Your task to perform on an android device: turn off data saver in the chrome app Image 0: 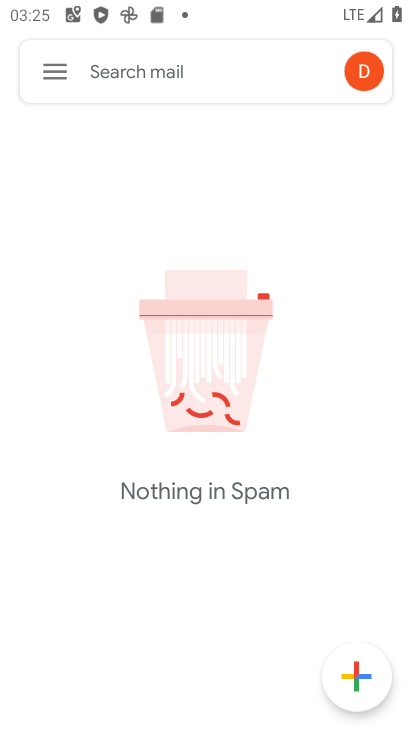
Step 0: press home button
Your task to perform on an android device: turn off data saver in the chrome app Image 1: 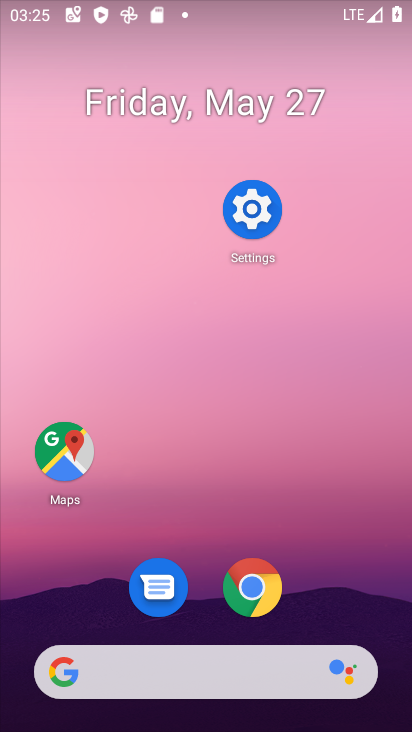
Step 1: click (230, 585)
Your task to perform on an android device: turn off data saver in the chrome app Image 2: 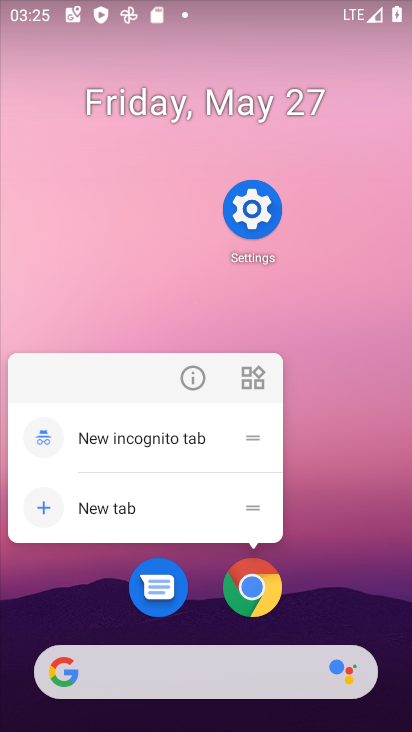
Step 2: click (245, 585)
Your task to perform on an android device: turn off data saver in the chrome app Image 3: 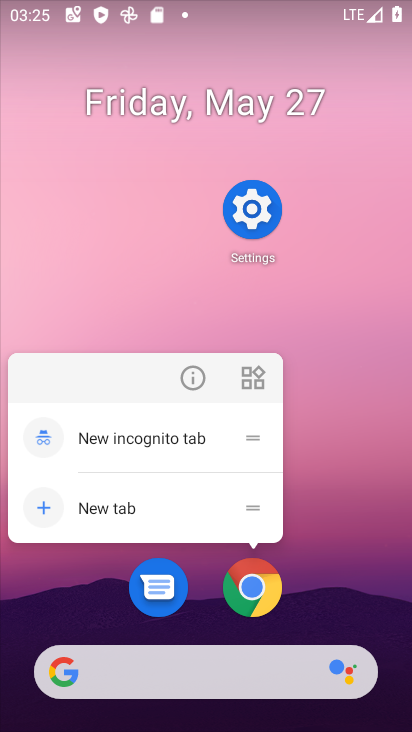
Step 3: click (245, 585)
Your task to perform on an android device: turn off data saver in the chrome app Image 4: 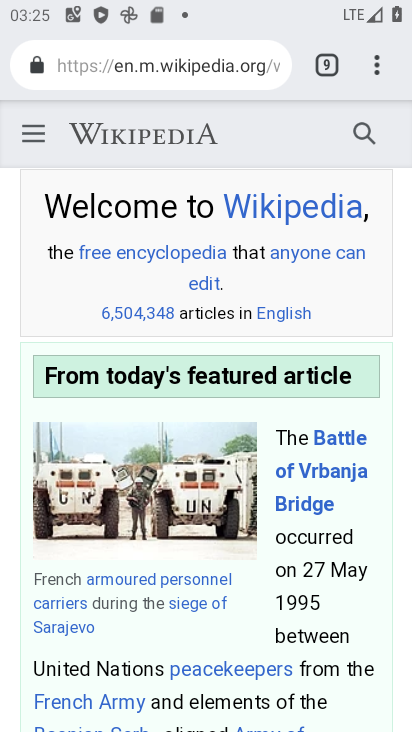
Step 4: click (370, 60)
Your task to perform on an android device: turn off data saver in the chrome app Image 5: 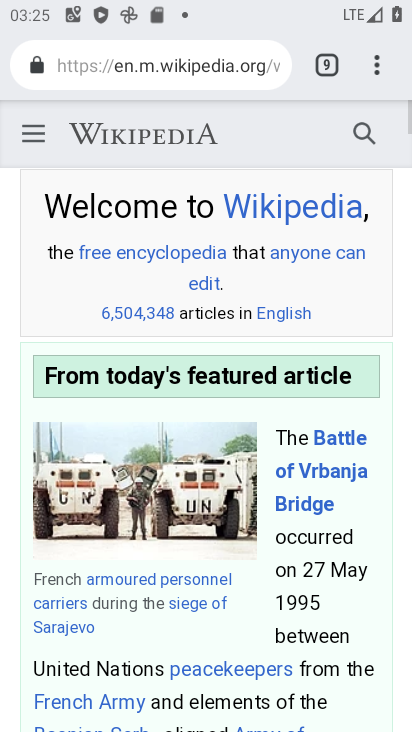
Step 5: drag from (373, 62) to (153, 632)
Your task to perform on an android device: turn off data saver in the chrome app Image 6: 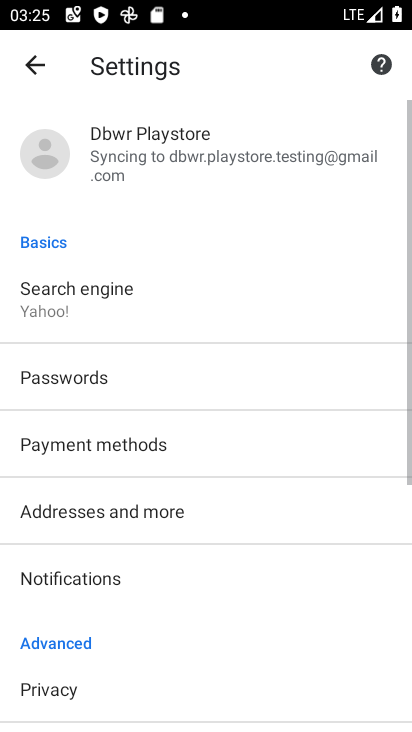
Step 6: drag from (237, 678) to (272, 135)
Your task to perform on an android device: turn off data saver in the chrome app Image 7: 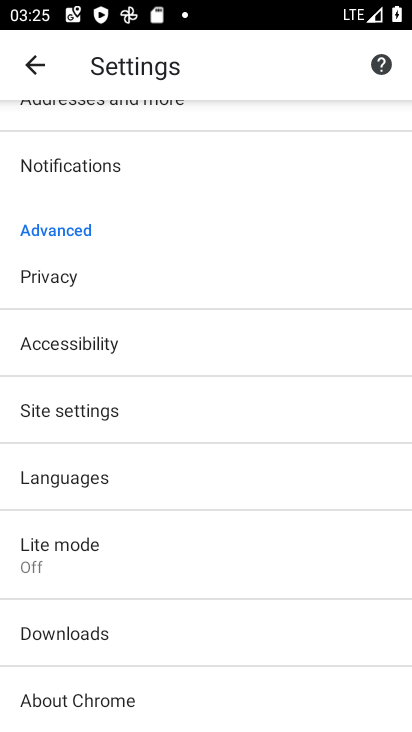
Step 7: click (45, 558)
Your task to perform on an android device: turn off data saver in the chrome app Image 8: 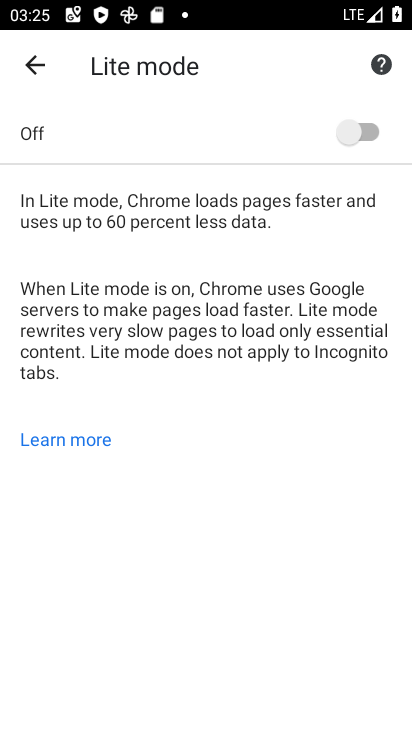
Step 8: task complete